Your task to perform on an android device: Open Google Image 0: 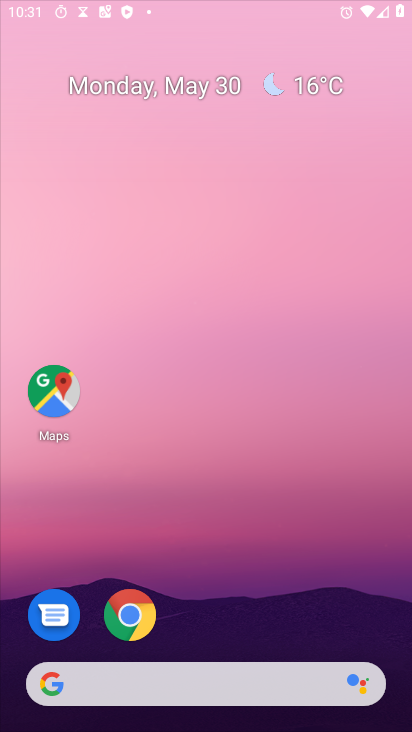
Step 0: drag from (320, 454) to (305, 111)
Your task to perform on an android device: Open Google Image 1: 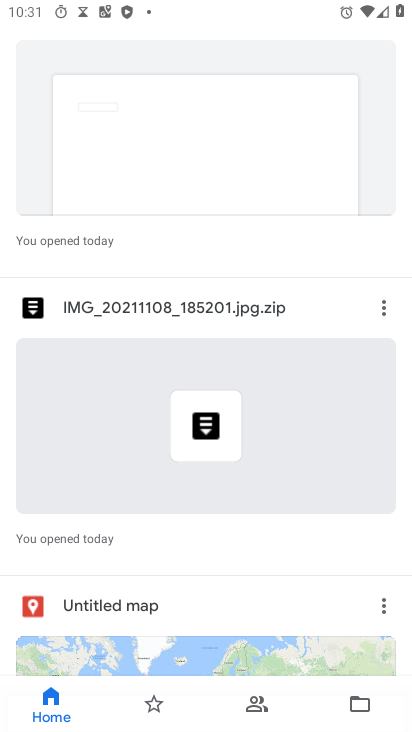
Step 1: press home button
Your task to perform on an android device: Open Google Image 2: 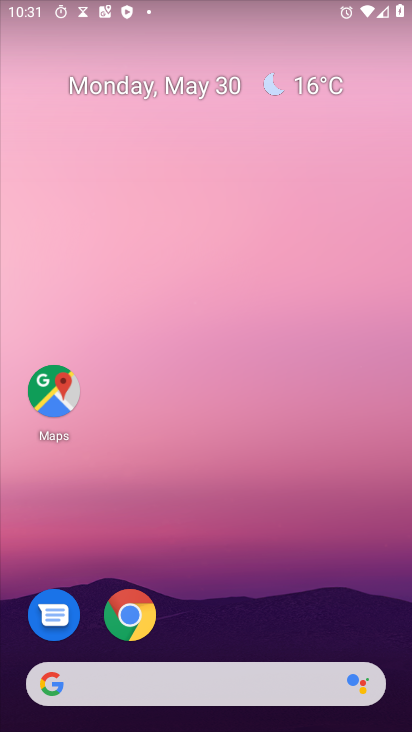
Step 2: drag from (274, 611) to (338, 39)
Your task to perform on an android device: Open Google Image 3: 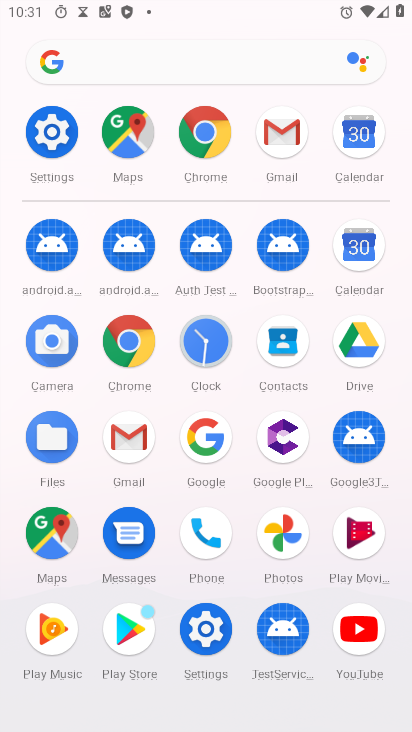
Step 3: click (191, 442)
Your task to perform on an android device: Open Google Image 4: 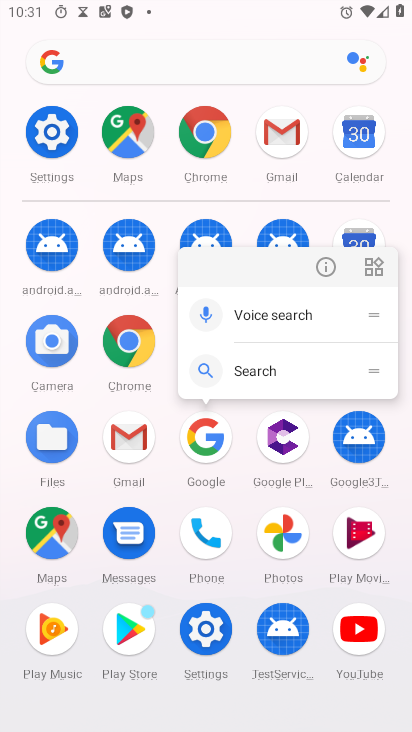
Step 4: click (191, 442)
Your task to perform on an android device: Open Google Image 5: 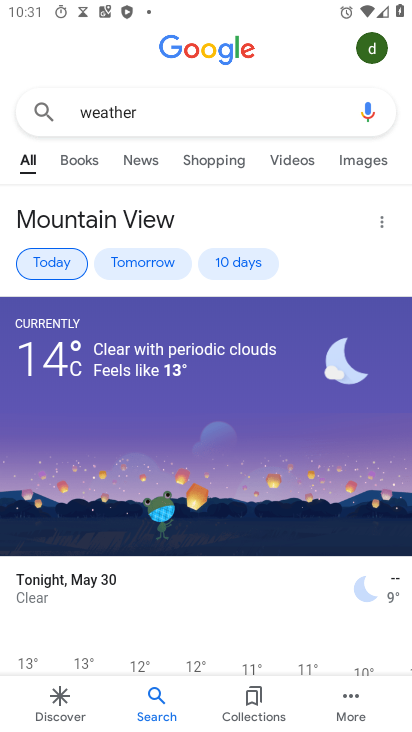
Step 5: task complete